Your task to perform on an android device: Open location settings Image 0: 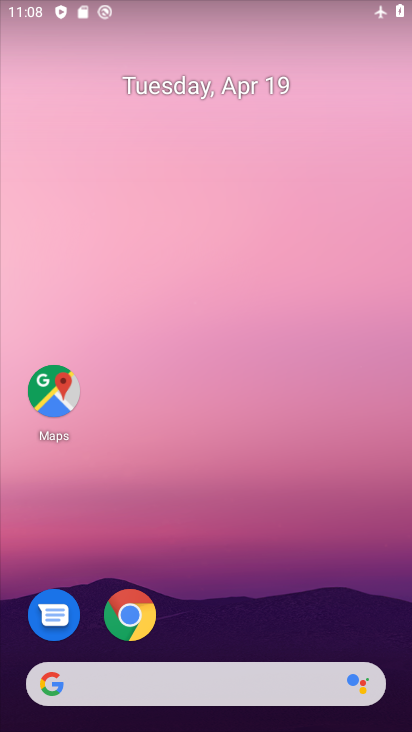
Step 0: drag from (216, 623) to (187, 148)
Your task to perform on an android device: Open location settings Image 1: 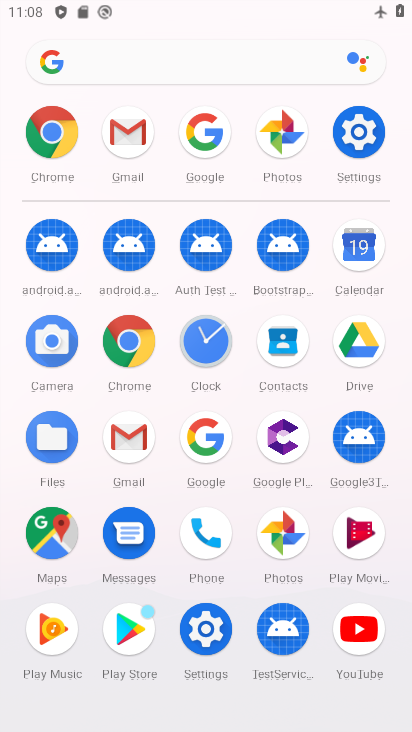
Step 1: click (358, 130)
Your task to perform on an android device: Open location settings Image 2: 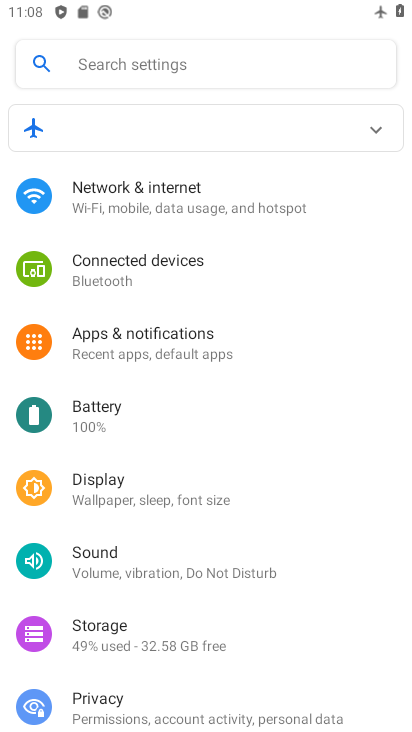
Step 2: drag from (173, 603) to (220, 274)
Your task to perform on an android device: Open location settings Image 3: 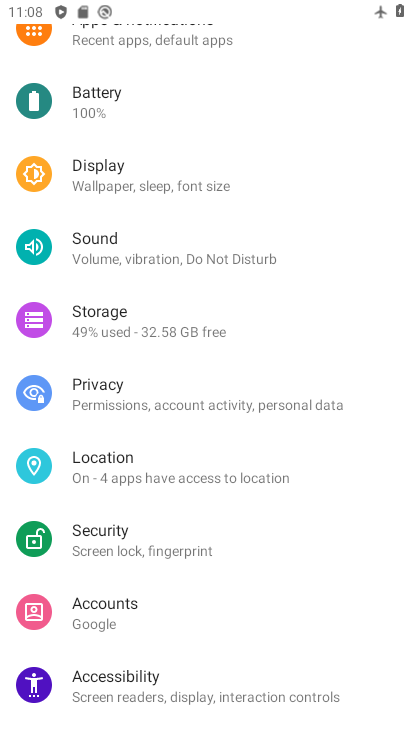
Step 3: click (137, 460)
Your task to perform on an android device: Open location settings Image 4: 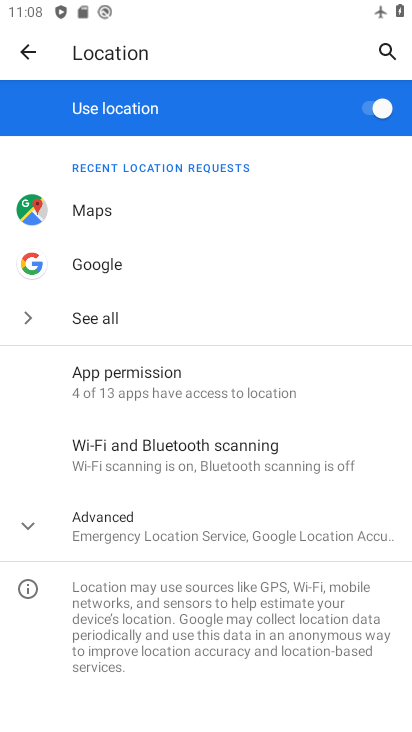
Step 4: click (154, 515)
Your task to perform on an android device: Open location settings Image 5: 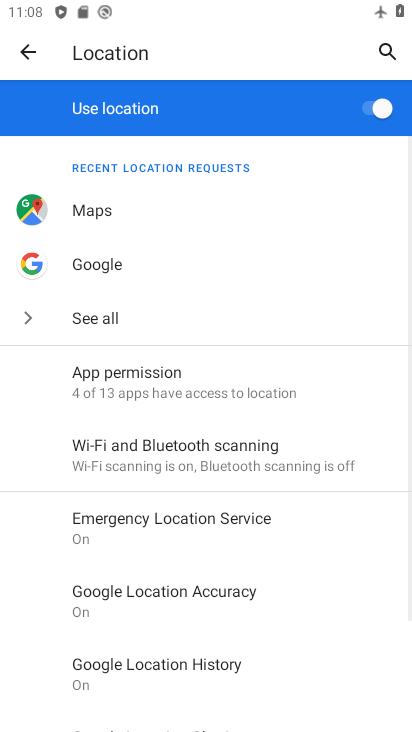
Step 5: task complete